Your task to perform on an android device: open app "Facebook Messenger" Image 0: 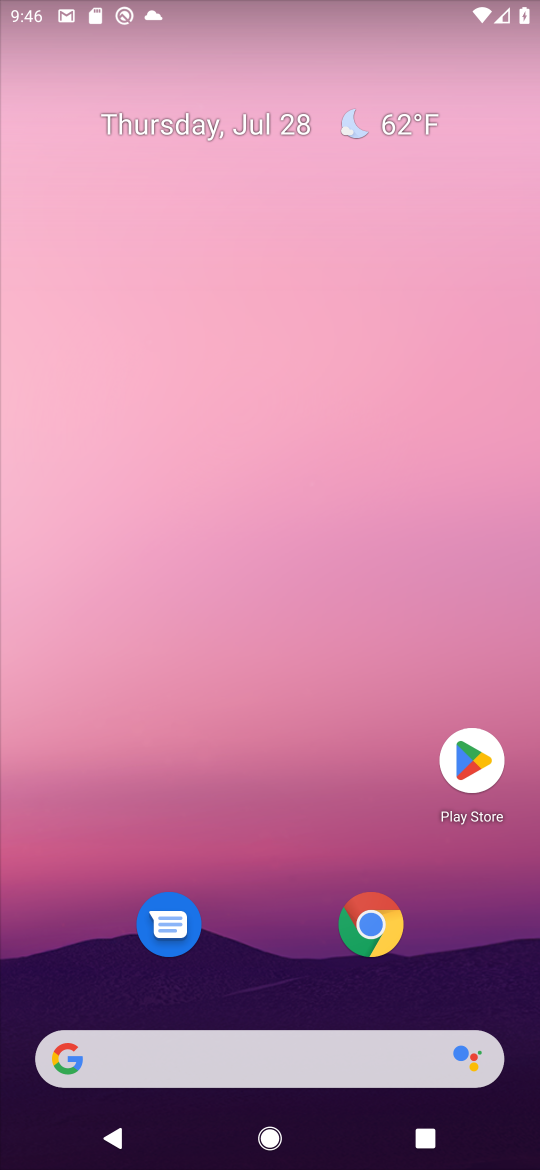
Step 0: click (467, 764)
Your task to perform on an android device: open app "Facebook Messenger" Image 1: 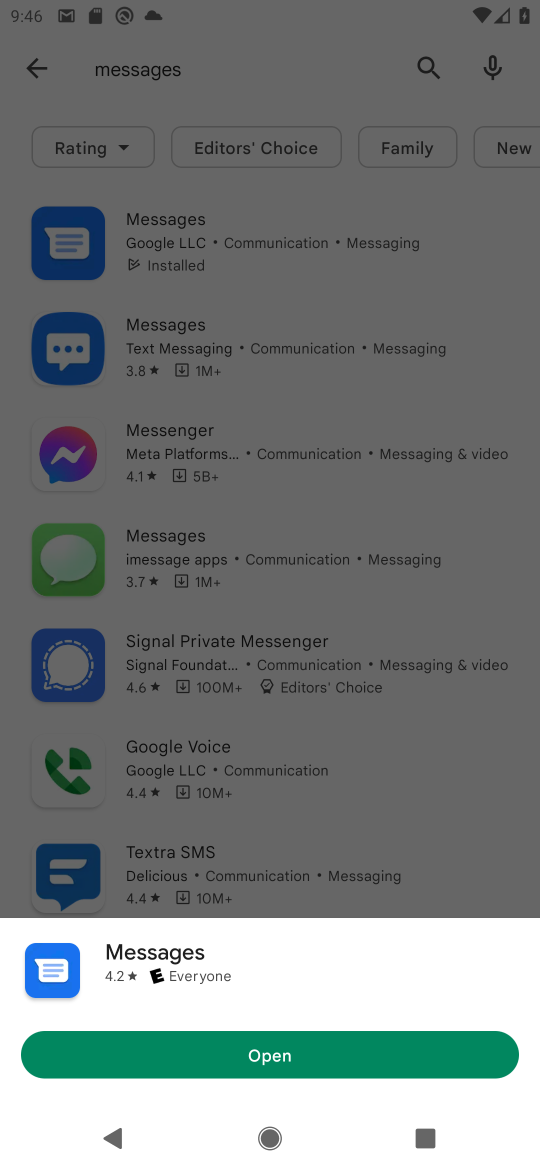
Step 1: click (424, 63)
Your task to perform on an android device: open app "Facebook Messenger" Image 2: 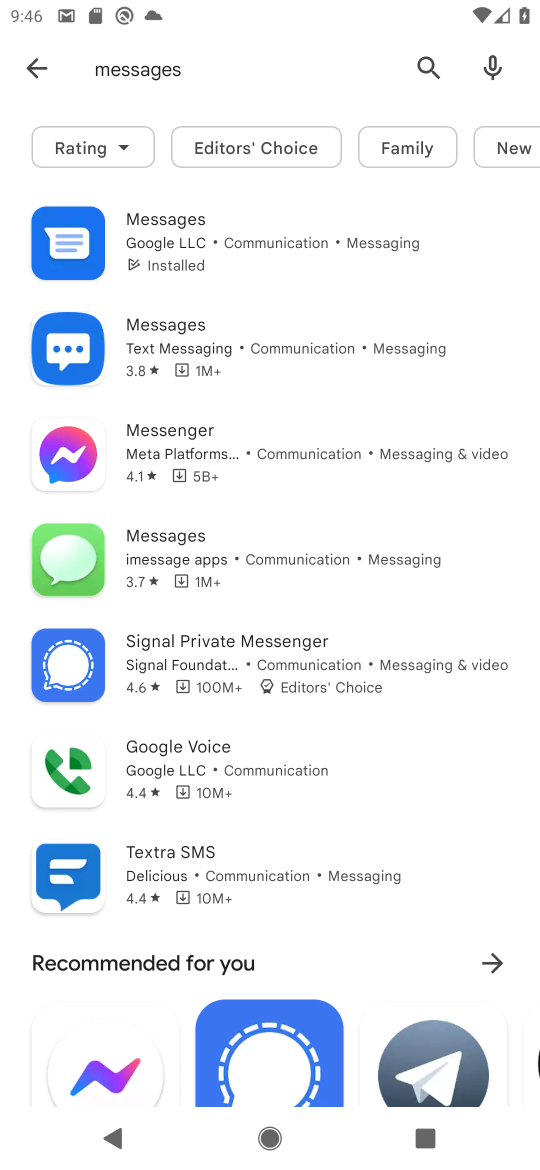
Step 2: click (424, 61)
Your task to perform on an android device: open app "Facebook Messenger" Image 3: 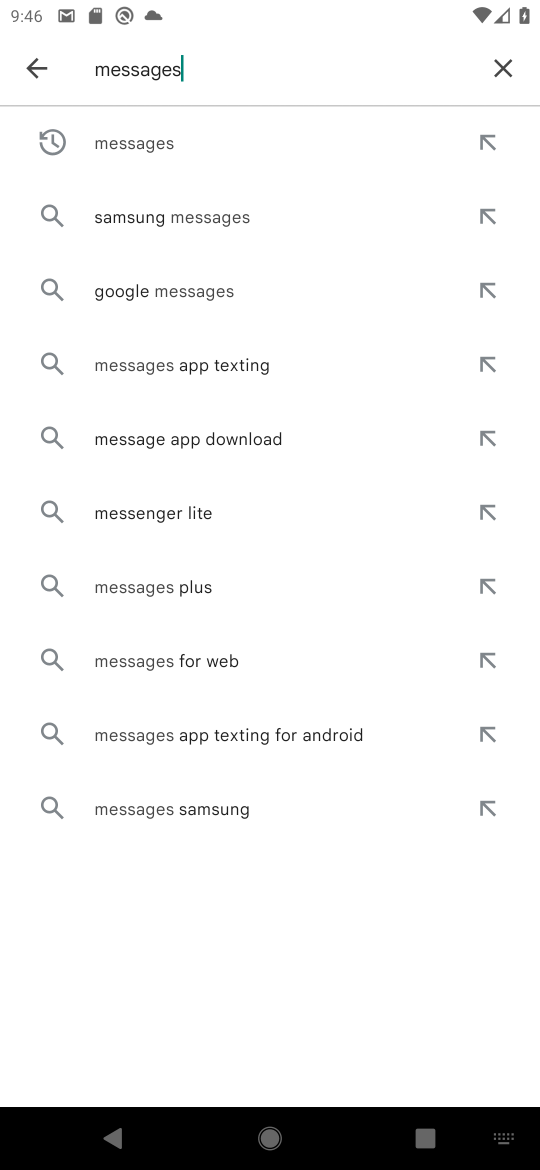
Step 3: click (505, 63)
Your task to perform on an android device: open app "Facebook Messenger" Image 4: 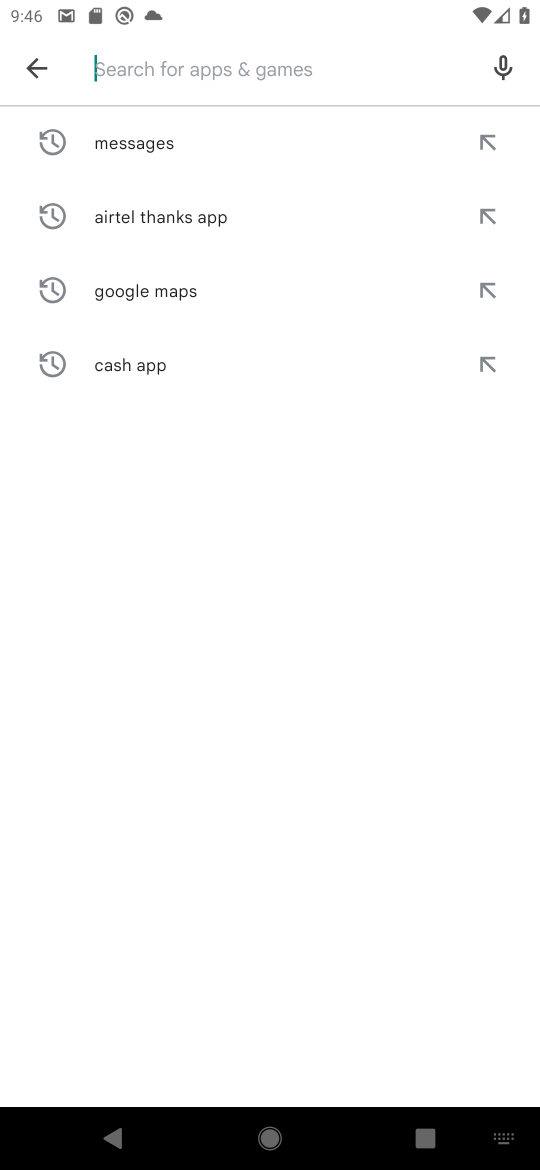
Step 4: type "Facebook Messenger"
Your task to perform on an android device: open app "Facebook Messenger" Image 5: 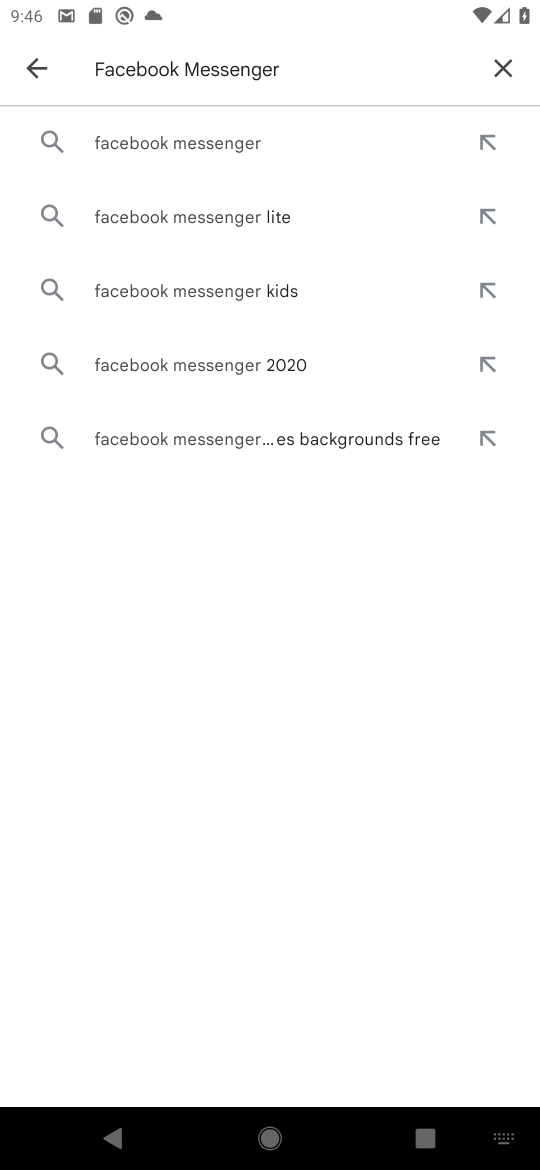
Step 5: click (191, 138)
Your task to perform on an android device: open app "Facebook Messenger" Image 6: 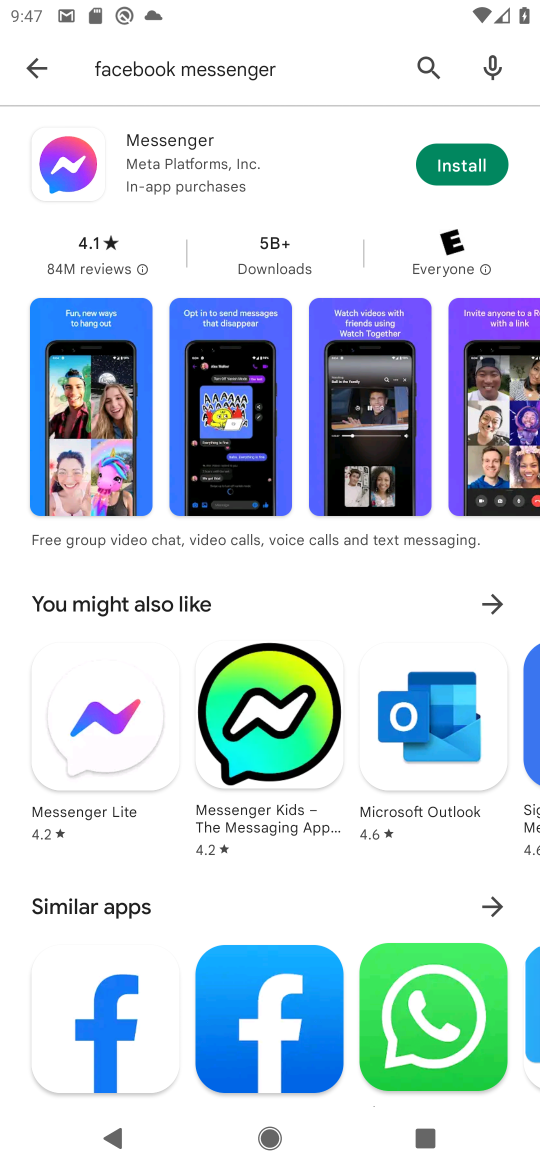
Step 6: task complete